Your task to perform on an android device: What is the recent news? Image 0: 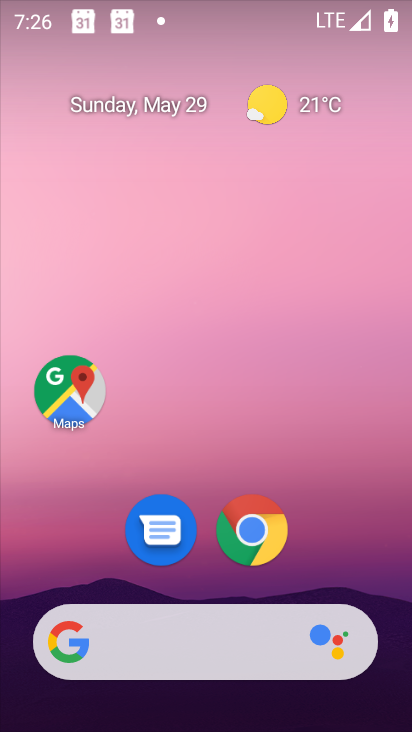
Step 0: click (293, 116)
Your task to perform on an android device: What is the recent news? Image 1: 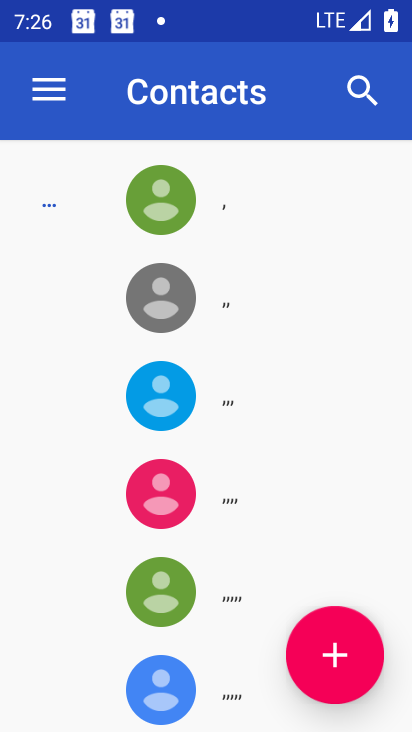
Step 1: press home button
Your task to perform on an android device: What is the recent news? Image 2: 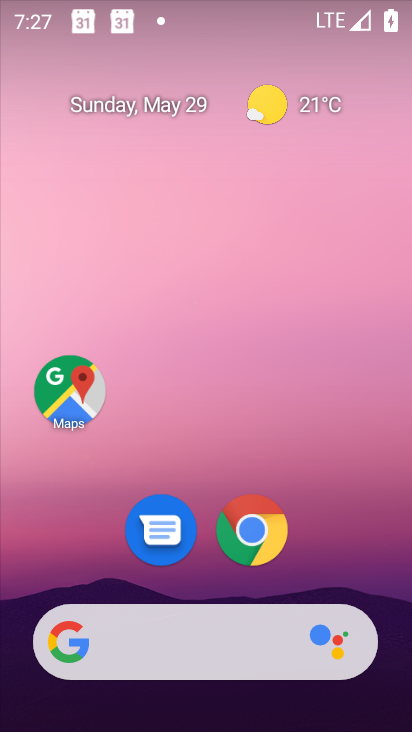
Step 2: drag from (248, 689) to (219, 140)
Your task to perform on an android device: What is the recent news? Image 3: 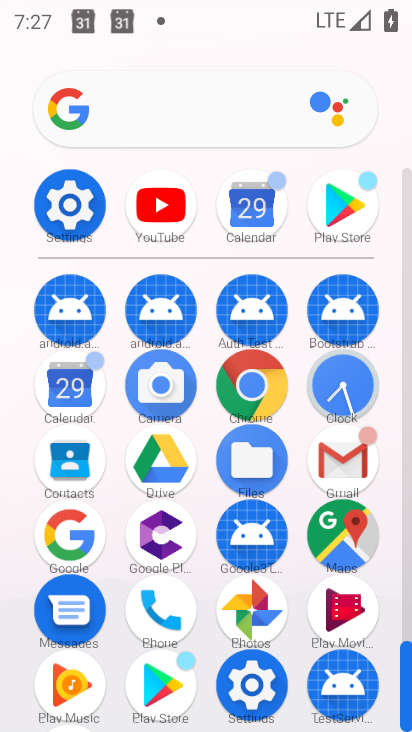
Step 3: click (149, 119)
Your task to perform on an android device: What is the recent news? Image 4: 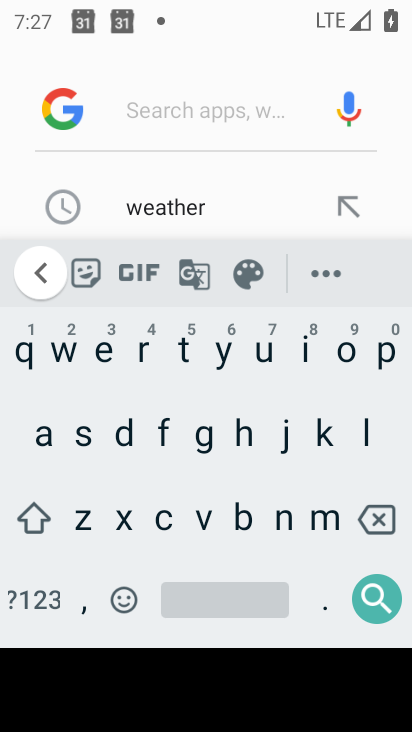
Step 4: click (134, 348)
Your task to perform on an android device: What is the recent news? Image 5: 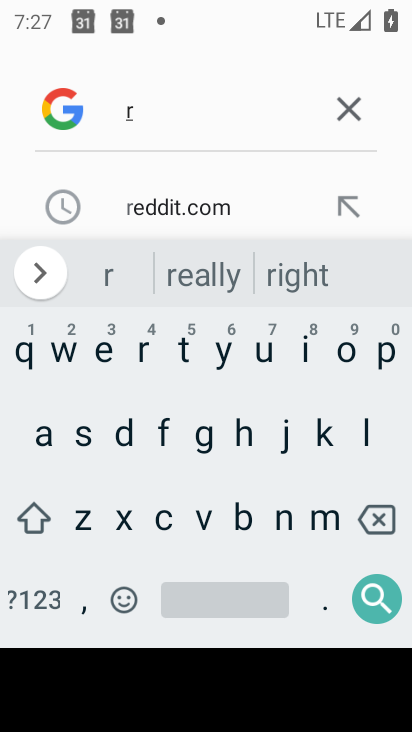
Step 5: click (97, 362)
Your task to perform on an android device: What is the recent news? Image 6: 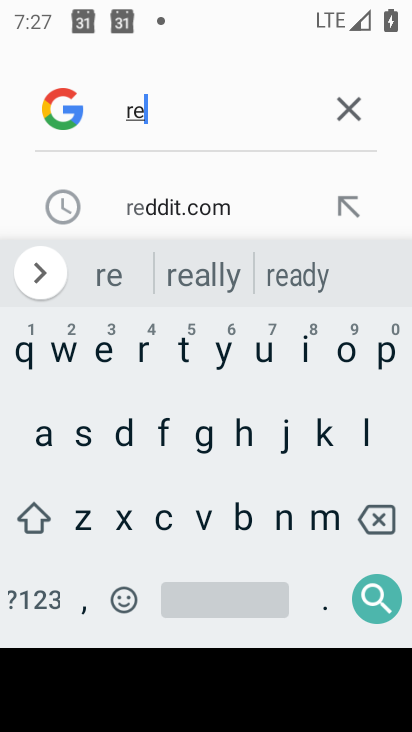
Step 6: click (163, 525)
Your task to perform on an android device: What is the recent news? Image 7: 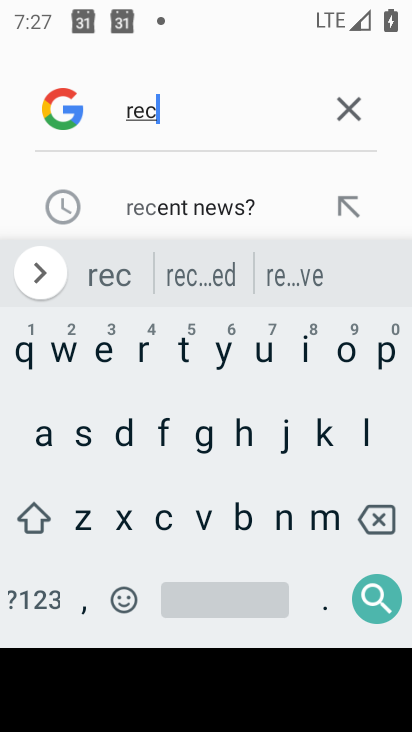
Step 7: click (228, 201)
Your task to perform on an android device: What is the recent news? Image 8: 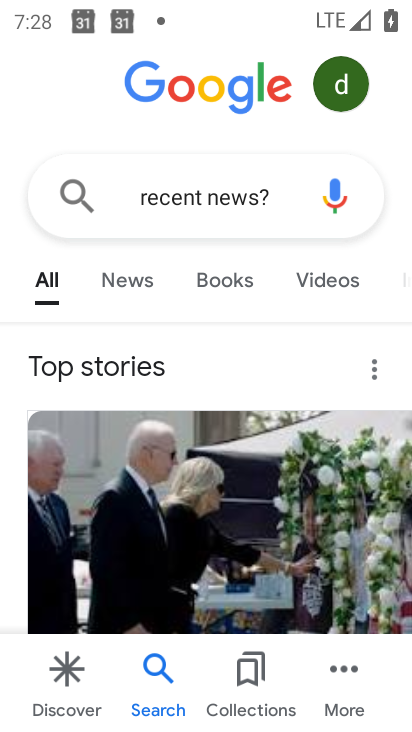
Step 8: task complete